Your task to perform on an android device: Open Chrome and go to settings Image 0: 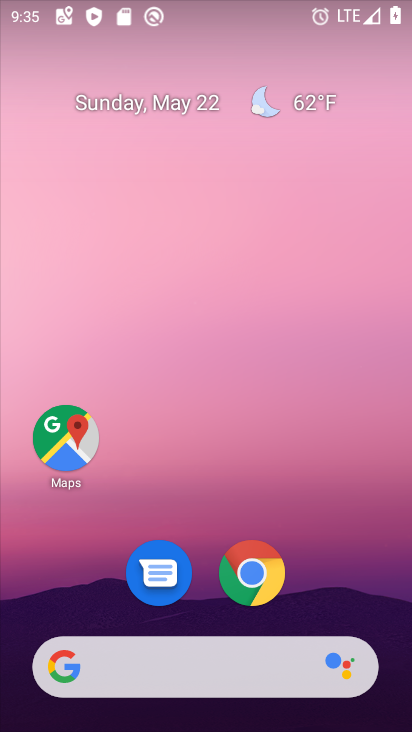
Step 0: drag from (201, 697) to (184, 96)
Your task to perform on an android device: Open Chrome and go to settings Image 1: 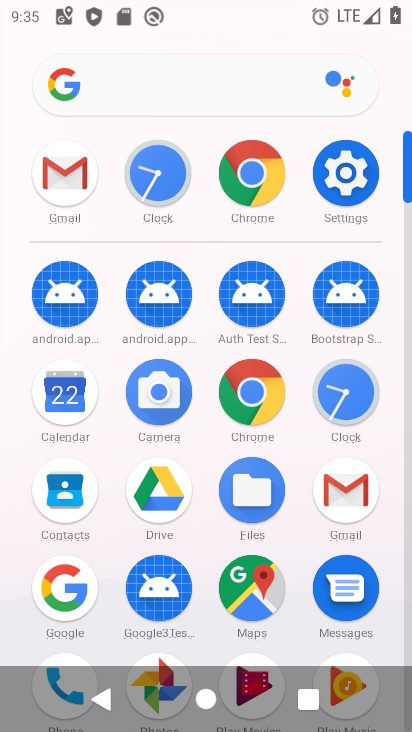
Step 1: click (243, 393)
Your task to perform on an android device: Open Chrome and go to settings Image 2: 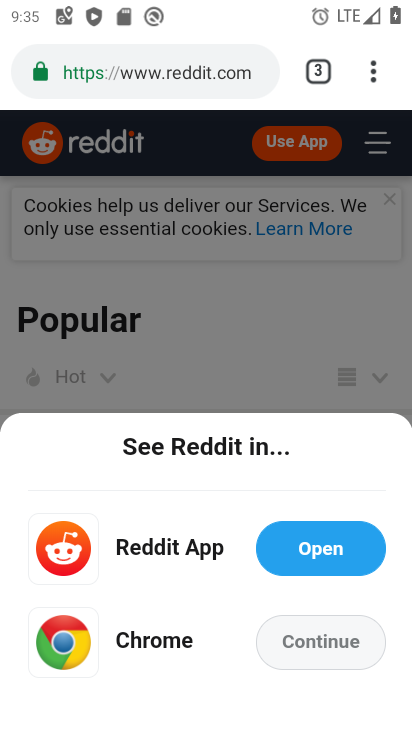
Step 2: task complete